Your task to perform on an android device: Open display settings Image 0: 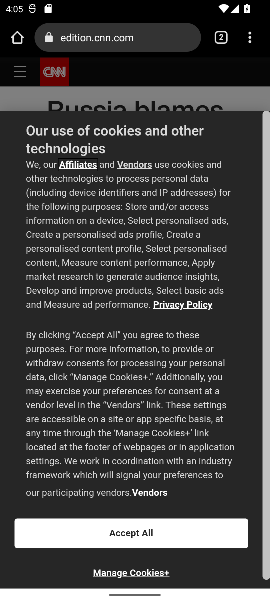
Step 0: press home button
Your task to perform on an android device: Open display settings Image 1: 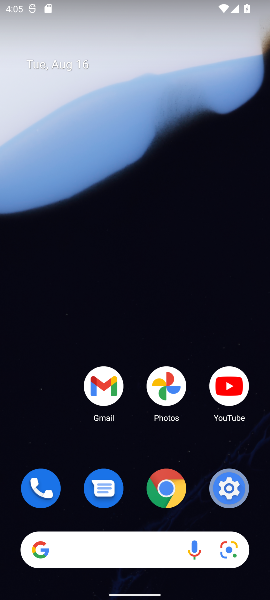
Step 1: drag from (55, 399) to (110, 46)
Your task to perform on an android device: Open display settings Image 2: 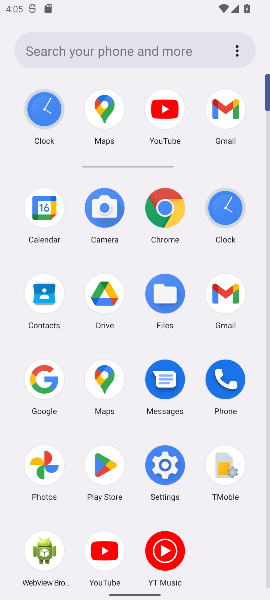
Step 2: click (164, 475)
Your task to perform on an android device: Open display settings Image 3: 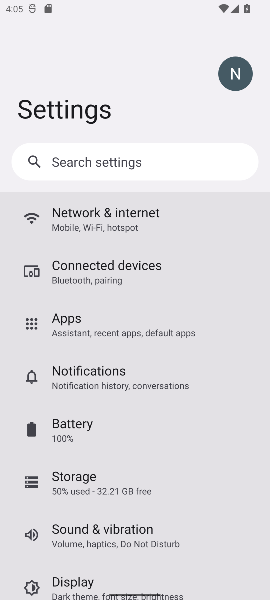
Step 3: task complete